Your task to perform on an android device: Open settings Image 0: 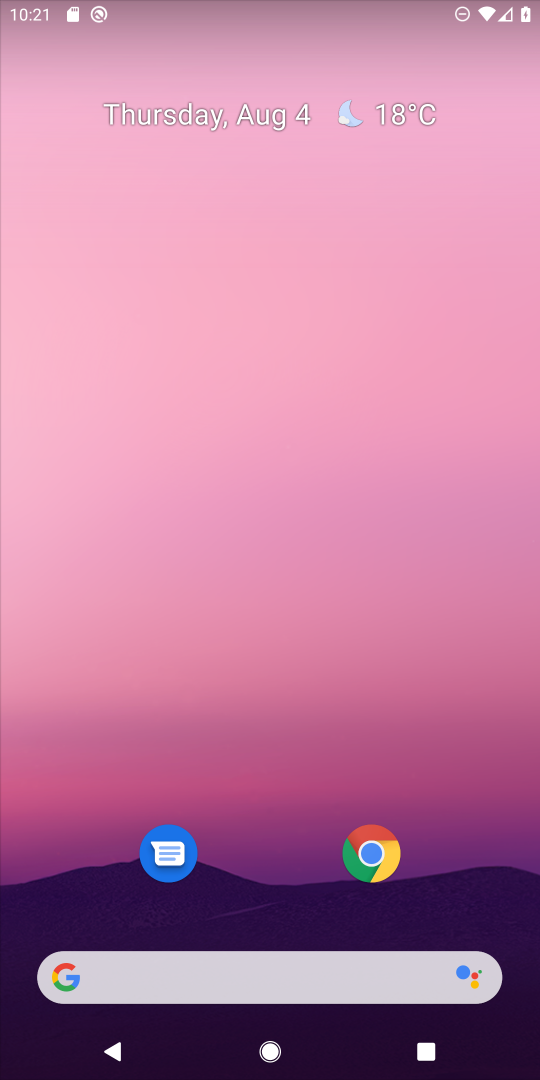
Step 0: drag from (265, 878) to (368, 240)
Your task to perform on an android device: Open settings Image 1: 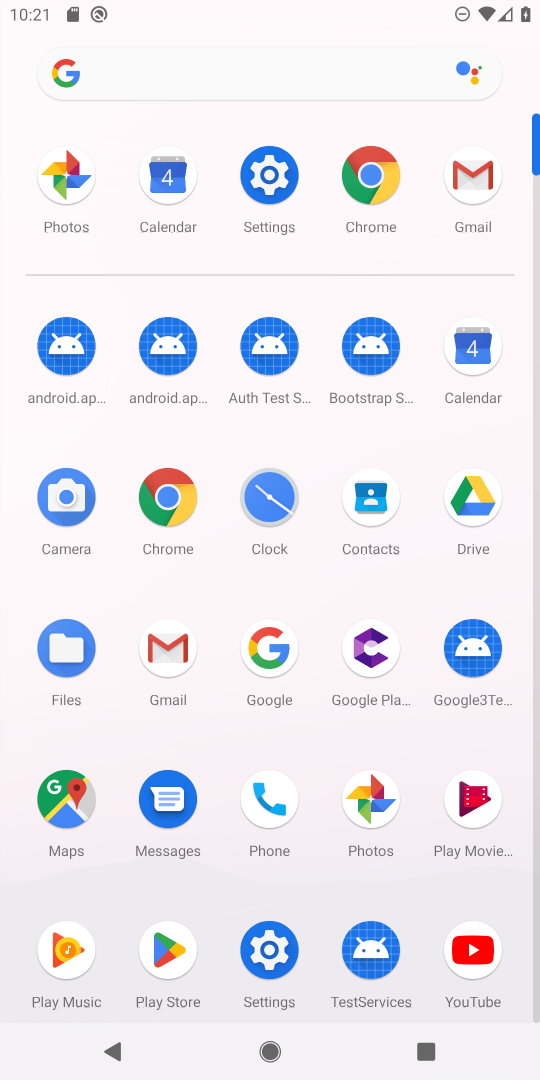
Step 1: click (256, 197)
Your task to perform on an android device: Open settings Image 2: 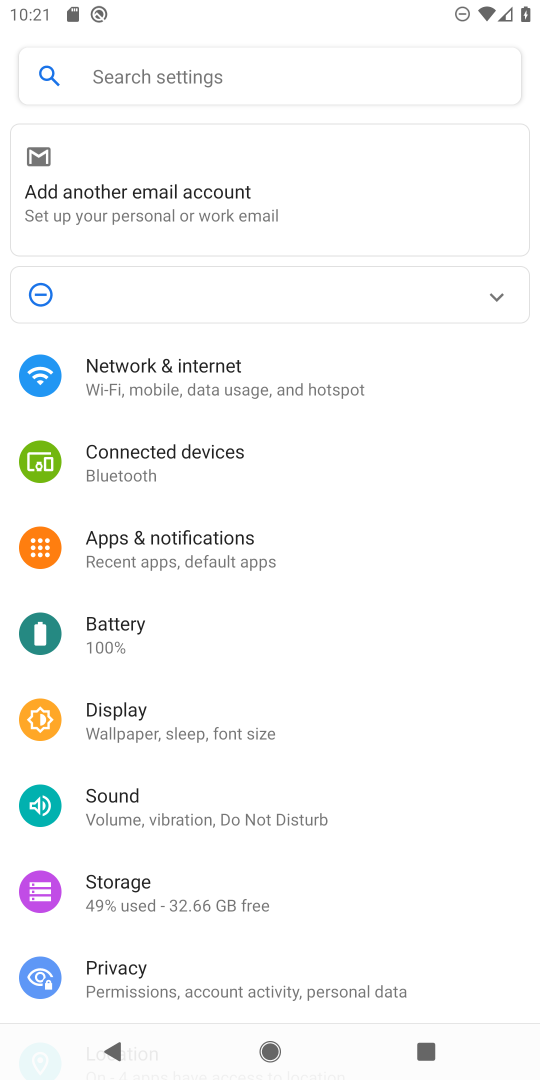
Step 2: task complete